Your task to perform on an android device: toggle notifications settings in the gmail app Image 0: 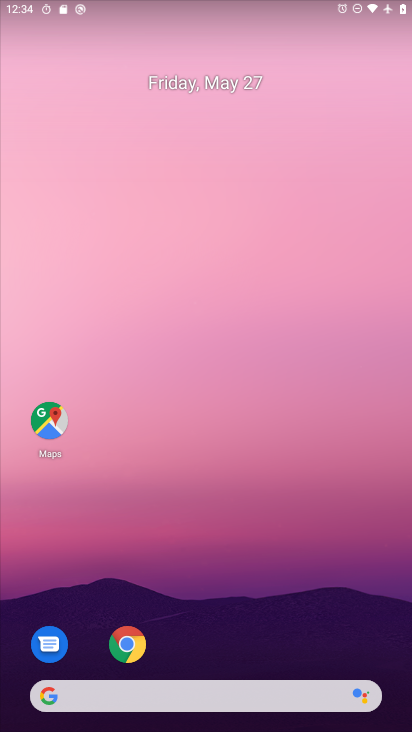
Step 0: drag from (204, 650) to (202, 233)
Your task to perform on an android device: toggle notifications settings in the gmail app Image 1: 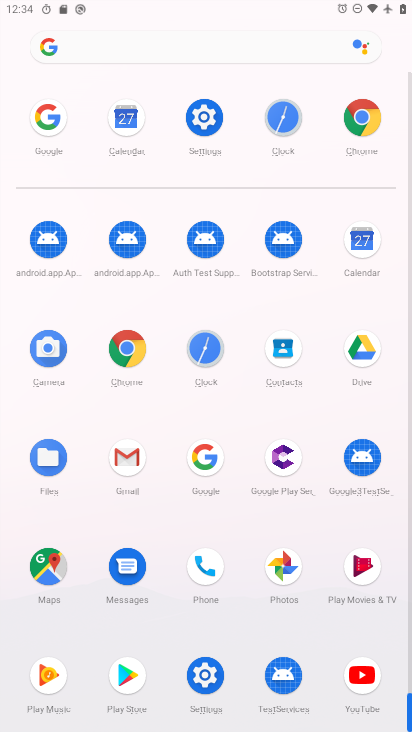
Step 1: click (134, 465)
Your task to perform on an android device: toggle notifications settings in the gmail app Image 2: 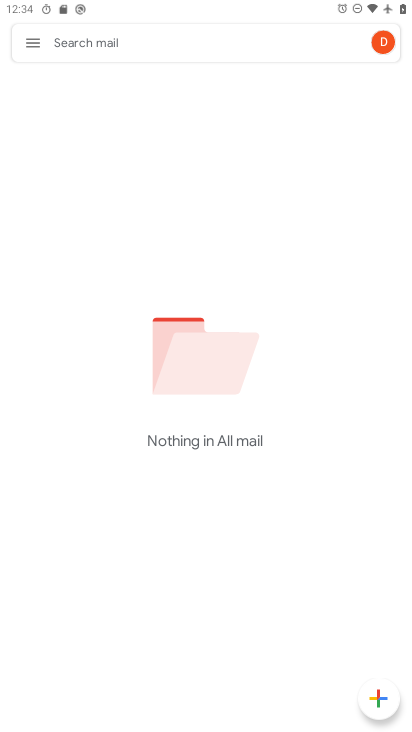
Step 2: click (39, 47)
Your task to perform on an android device: toggle notifications settings in the gmail app Image 3: 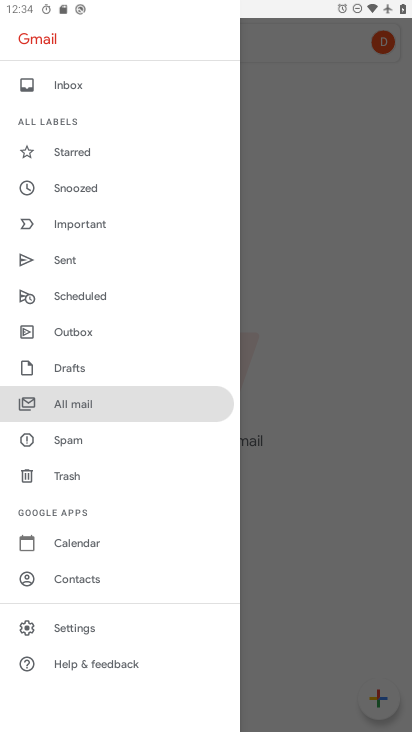
Step 3: click (83, 619)
Your task to perform on an android device: toggle notifications settings in the gmail app Image 4: 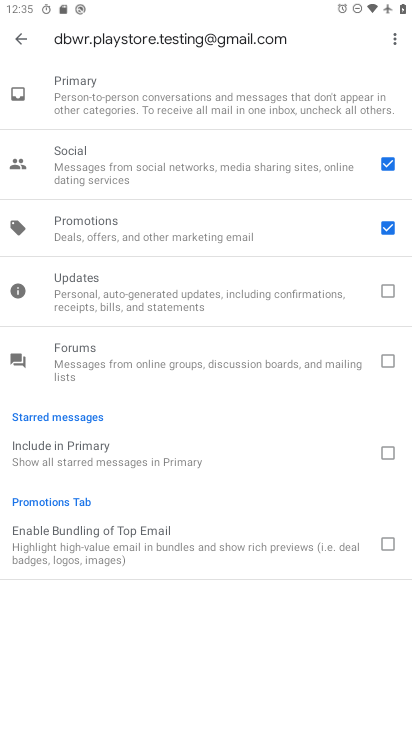
Step 4: click (23, 41)
Your task to perform on an android device: toggle notifications settings in the gmail app Image 5: 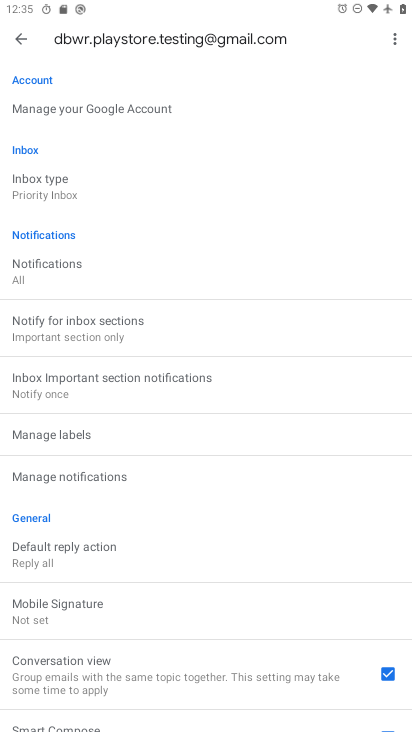
Step 5: click (122, 476)
Your task to perform on an android device: toggle notifications settings in the gmail app Image 6: 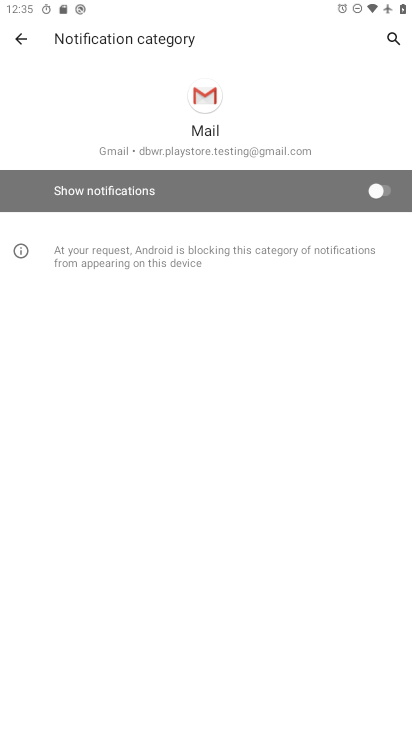
Step 6: click (386, 182)
Your task to perform on an android device: toggle notifications settings in the gmail app Image 7: 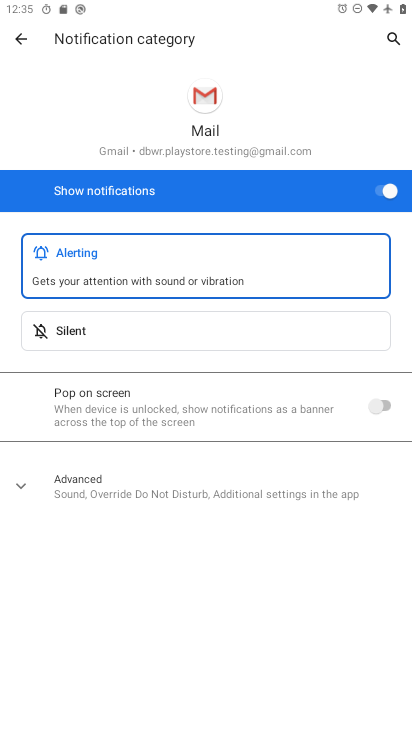
Step 7: task complete